Your task to perform on an android device: turn on data saver in the chrome app Image 0: 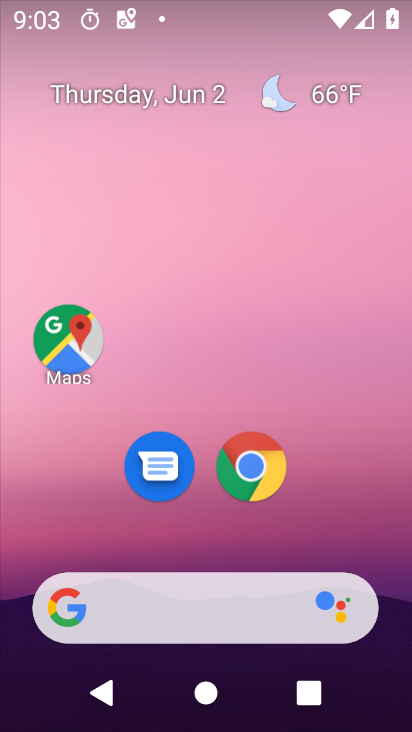
Step 0: click (242, 463)
Your task to perform on an android device: turn on data saver in the chrome app Image 1: 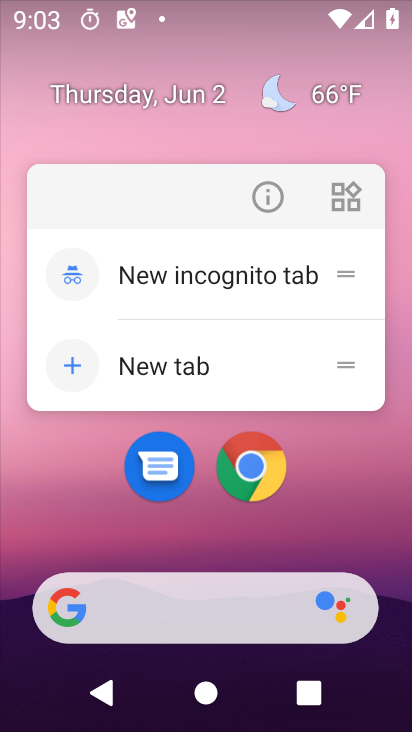
Step 1: click (262, 463)
Your task to perform on an android device: turn on data saver in the chrome app Image 2: 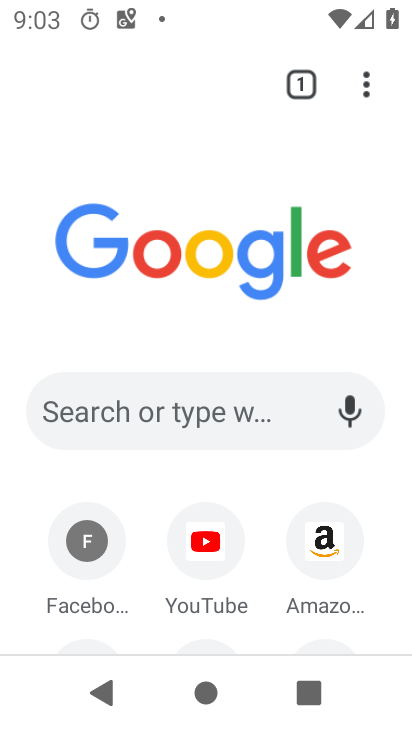
Step 2: click (361, 81)
Your task to perform on an android device: turn on data saver in the chrome app Image 3: 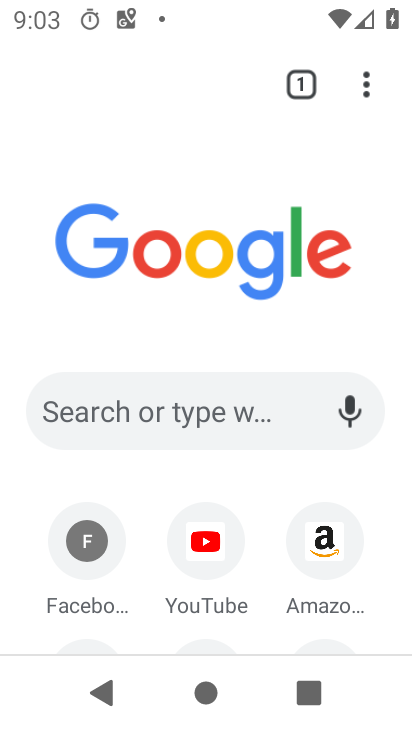
Step 3: click (368, 92)
Your task to perform on an android device: turn on data saver in the chrome app Image 4: 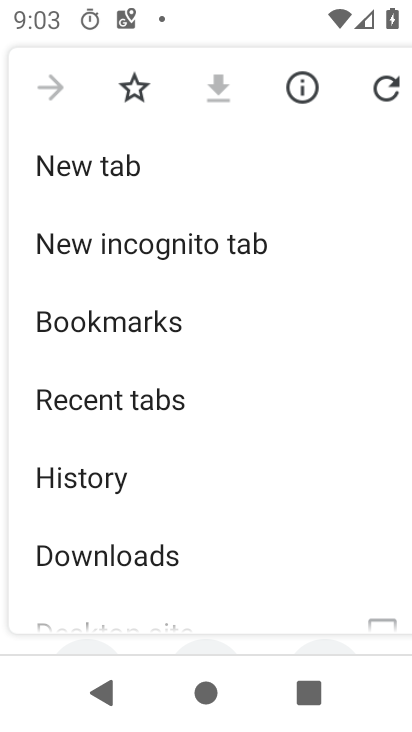
Step 4: drag from (3, 572) to (301, 79)
Your task to perform on an android device: turn on data saver in the chrome app Image 5: 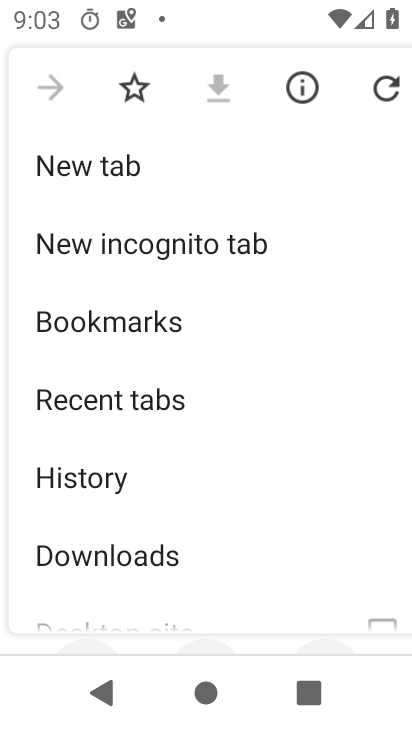
Step 5: drag from (11, 603) to (316, 142)
Your task to perform on an android device: turn on data saver in the chrome app Image 6: 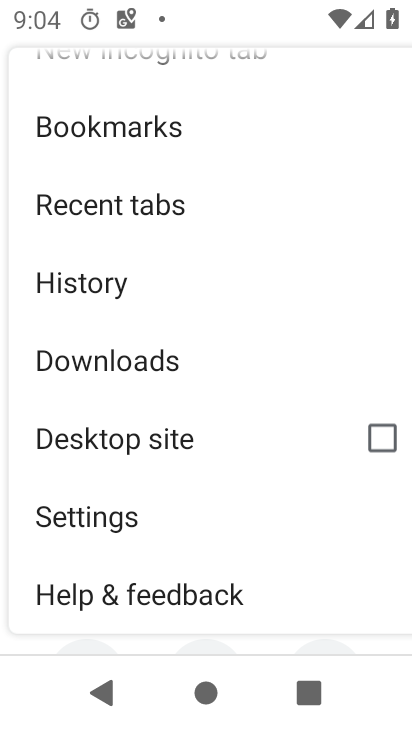
Step 6: click (97, 512)
Your task to perform on an android device: turn on data saver in the chrome app Image 7: 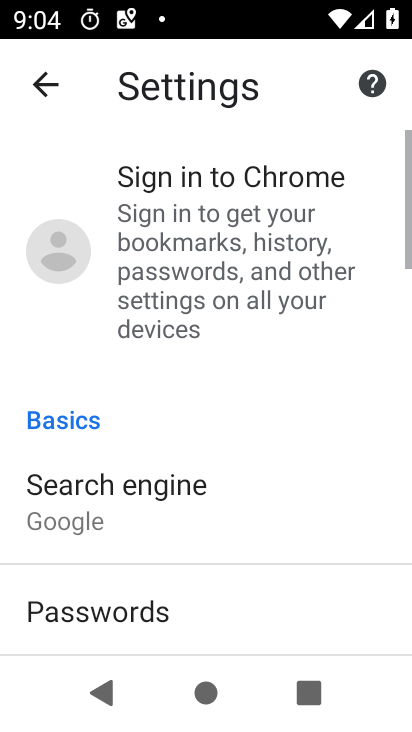
Step 7: drag from (24, 530) to (310, 128)
Your task to perform on an android device: turn on data saver in the chrome app Image 8: 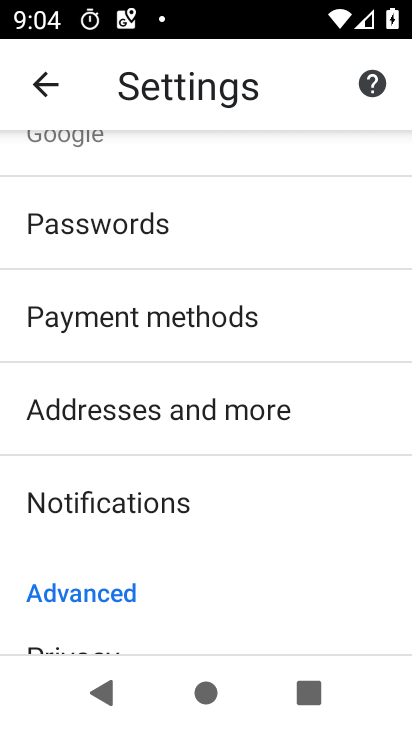
Step 8: drag from (15, 610) to (306, 187)
Your task to perform on an android device: turn on data saver in the chrome app Image 9: 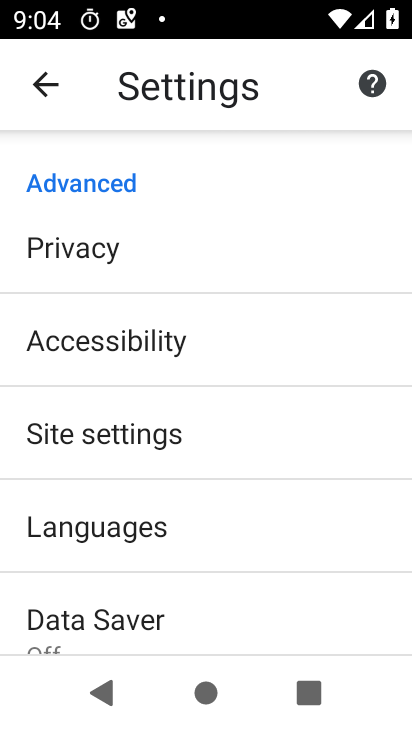
Step 9: click (74, 626)
Your task to perform on an android device: turn on data saver in the chrome app Image 10: 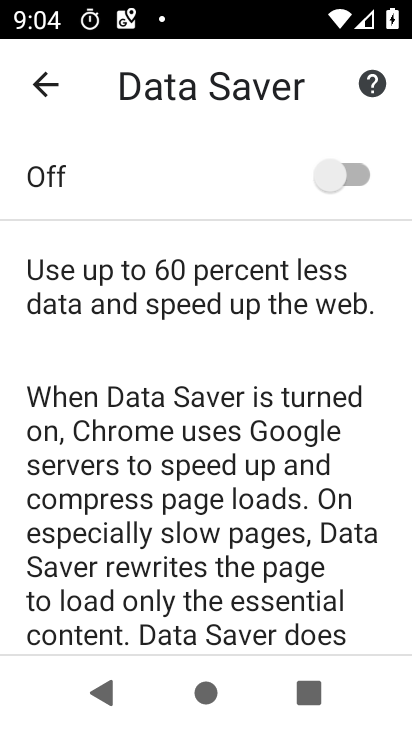
Step 10: click (341, 176)
Your task to perform on an android device: turn on data saver in the chrome app Image 11: 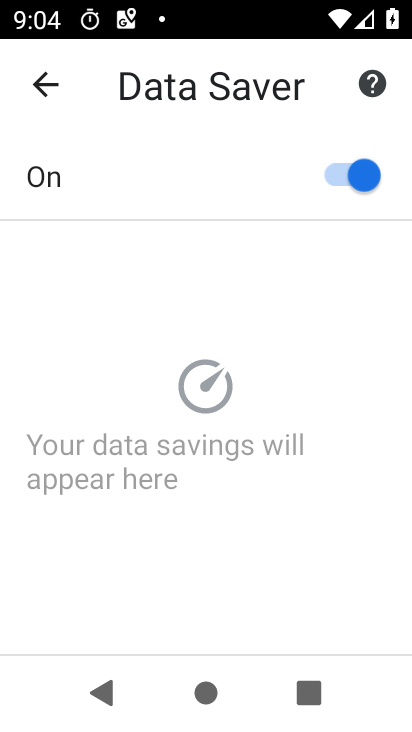
Step 11: task complete